Your task to perform on an android device: Open eBay Image 0: 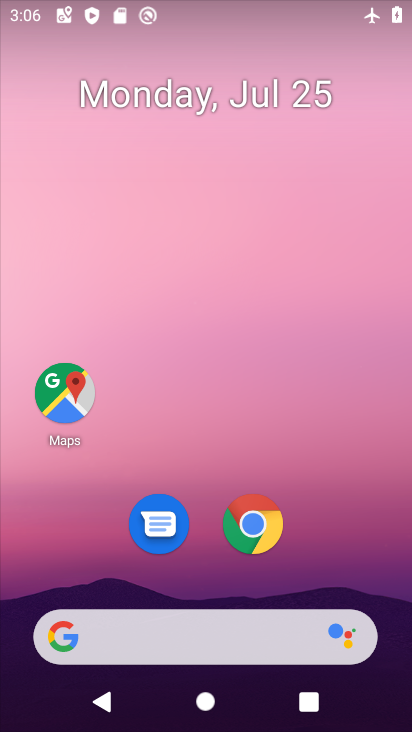
Step 0: click (233, 655)
Your task to perform on an android device: Open eBay Image 1: 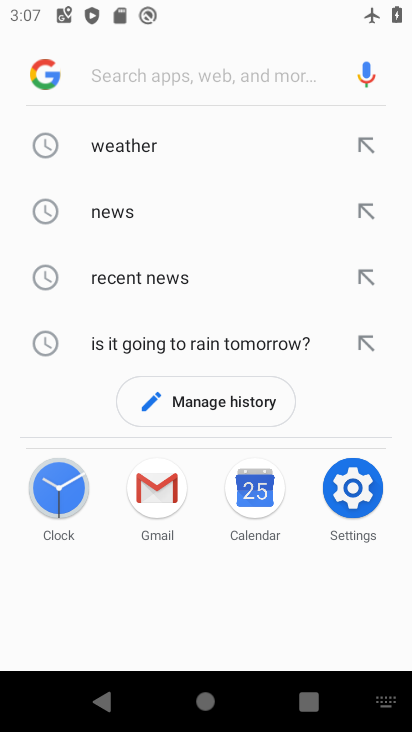
Step 1: type "ebay"
Your task to perform on an android device: Open eBay Image 2: 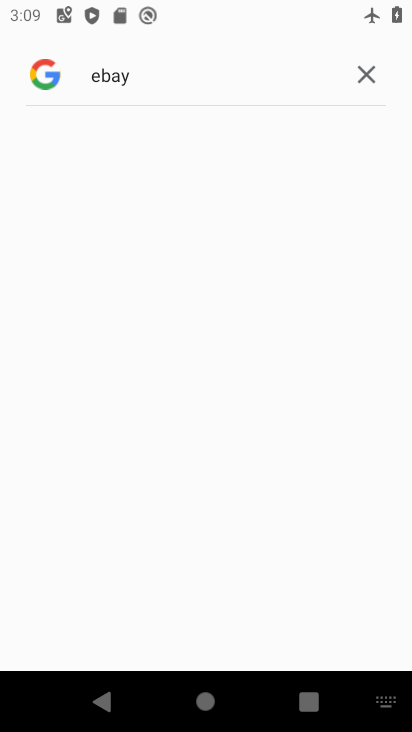
Step 2: task complete